Your task to perform on an android device: Go to privacy settings Image 0: 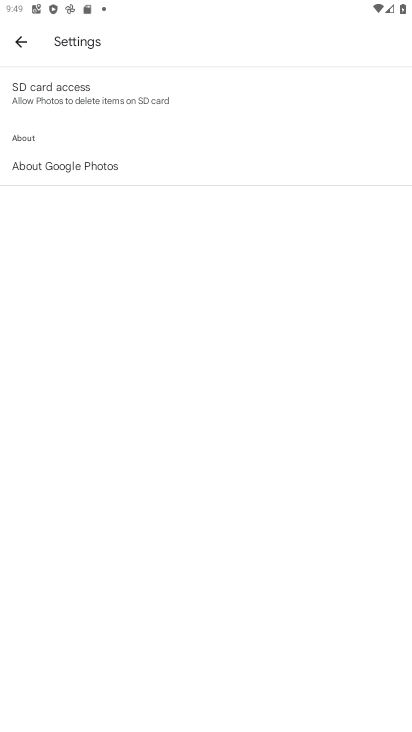
Step 0: press home button
Your task to perform on an android device: Go to privacy settings Image 1: 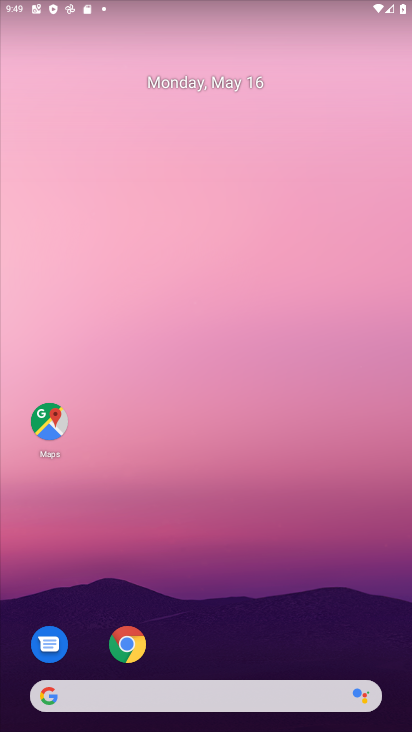
Step 1: drag from (405, 217) to (322, 4)
Your task to perform on an android device: Go to privacy settings Image 2: 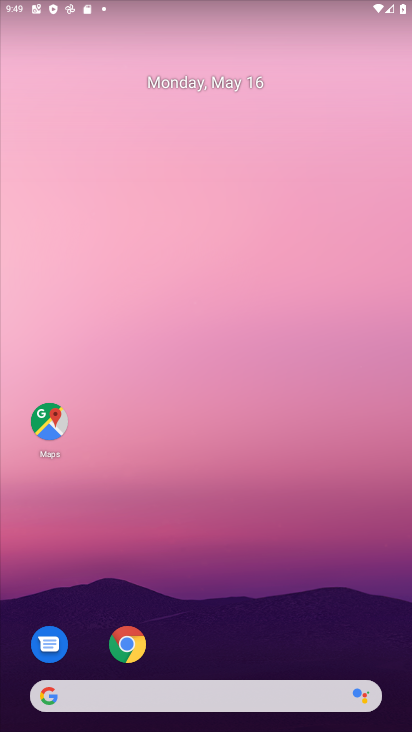
Step 2: drag from (281, 724) to (258, 159)
Your task to perform on an android device: Go to privacy settings Image 3: 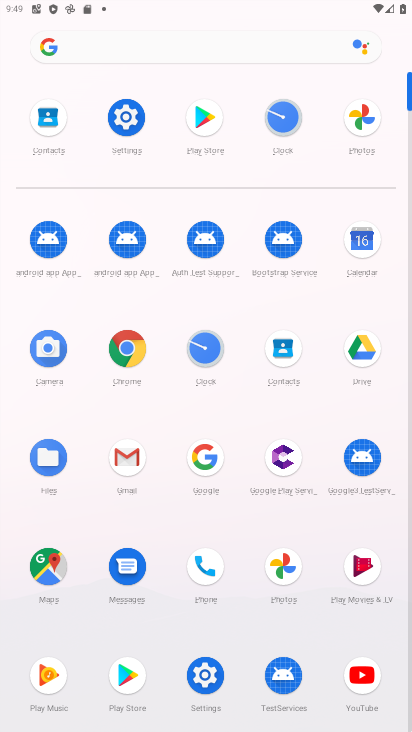
Step 3: click (128, 118)
Your task to perform on an android device: Go to privacy settings Image 4: 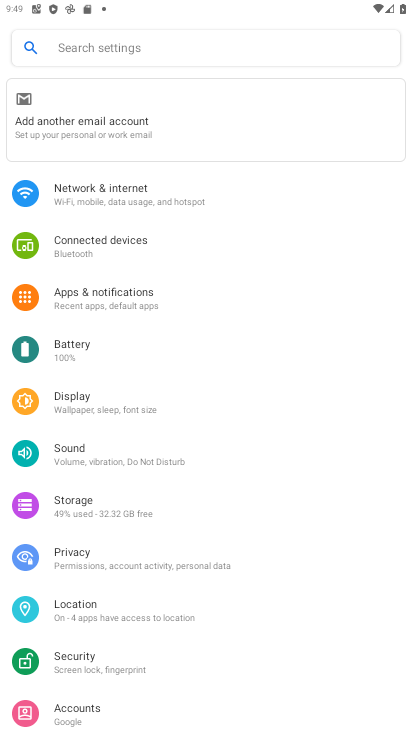
Step 4: click (126, 556)
Your task to perform on an android device: Go to privacy settings Image 5: 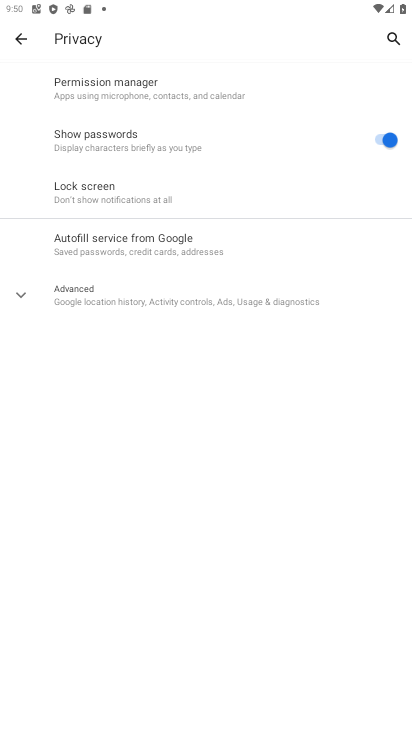
Step 5: task complete